Your task to perform on an android device: Open Google Maps and go to "Timeline" Image 0: 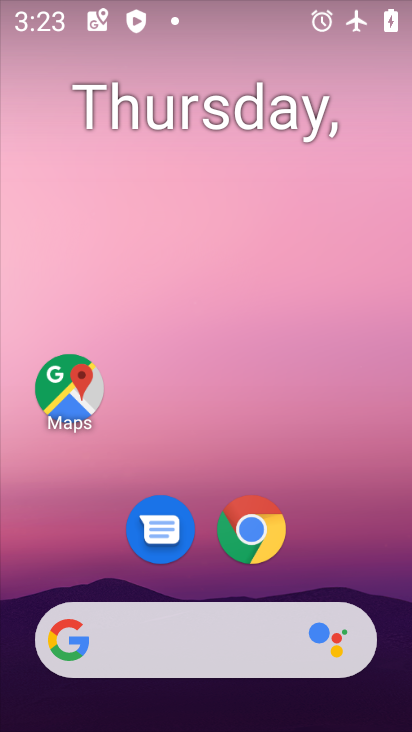
Step 0: click (70, 389)
Your task to perform on an android device: Open Google Maps and go to "Timeline" Image 1: 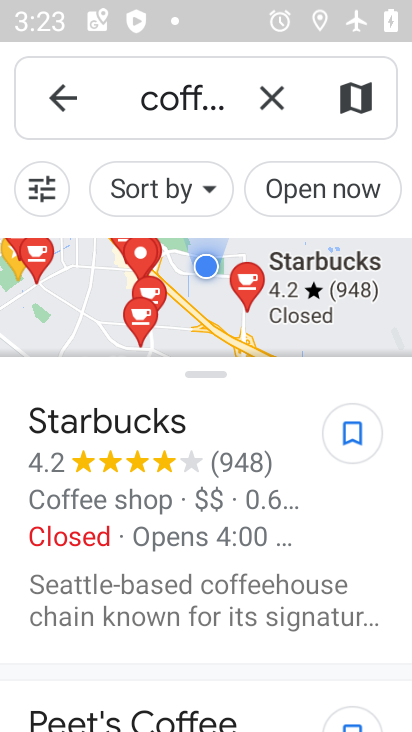
Step 1: click (272, 100)
Your task to perform on an android device: Open Google Maps and go to "Timeline" Image 2: 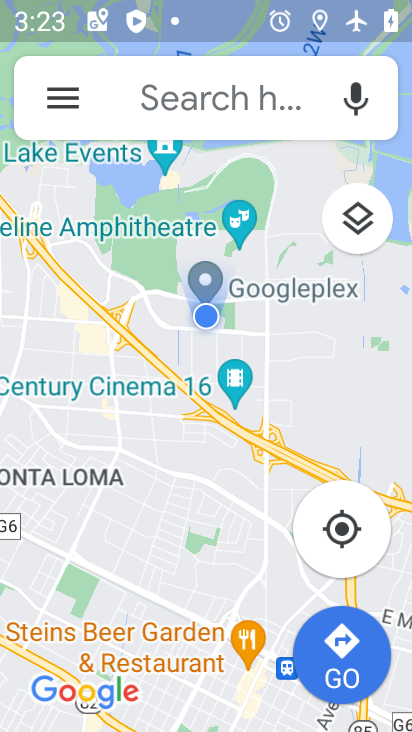
Step 2: click (64, 87)
Your task to perform on an android device: Open Google Maps and go to "Timeline" Image 3: 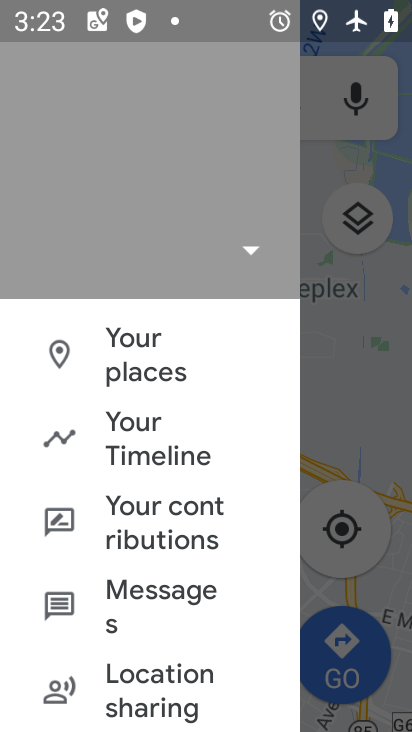
Step 3: click (145, 432)
Your task to perform on an android device: Open Google Maps and go to "Timeline" Image 4: 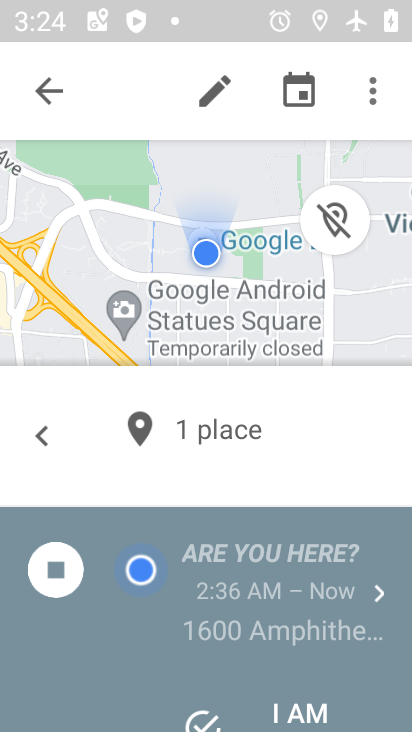
Step 4: task complete